Your task to perform on an android device: Go to sound settings Image 0: 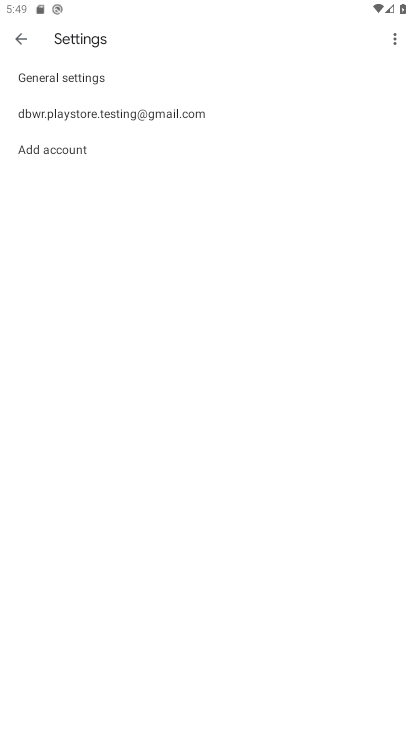
Step 0: press home button
Your task to perform on an android device: Go to sound settings Image 1: 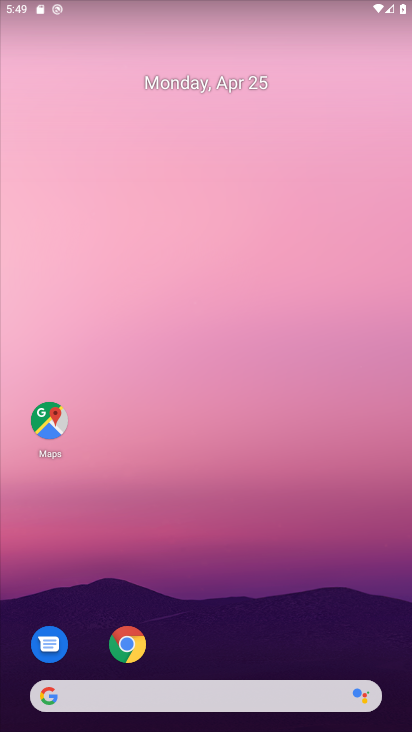
Step 1: drag from (220, 605) to (139, 37)
Your task to perform on an android device: Go to sound settings Image 2: 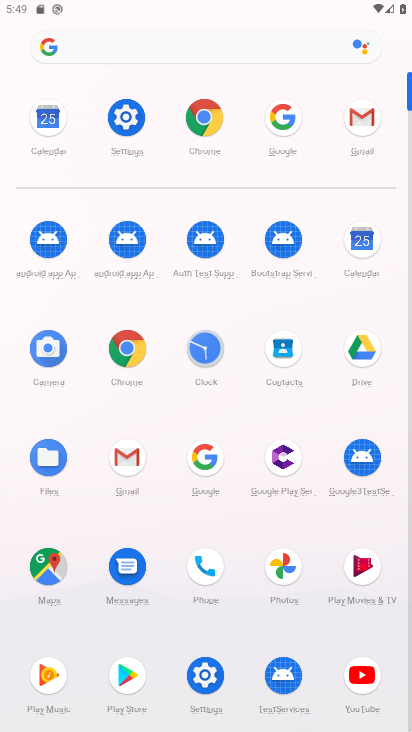
Step 2: click (133, 118)
Your task to perform on an android device: Go to sound settings Image 3: 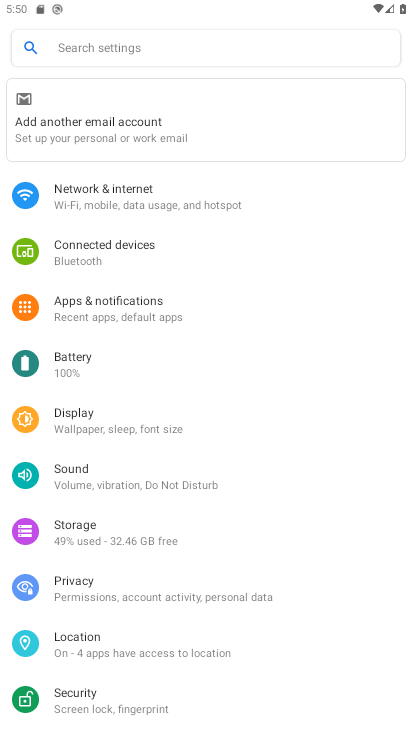
Step 3: click (125, 462)
Your task to perform on an android device: Go to sound settings Image 4: 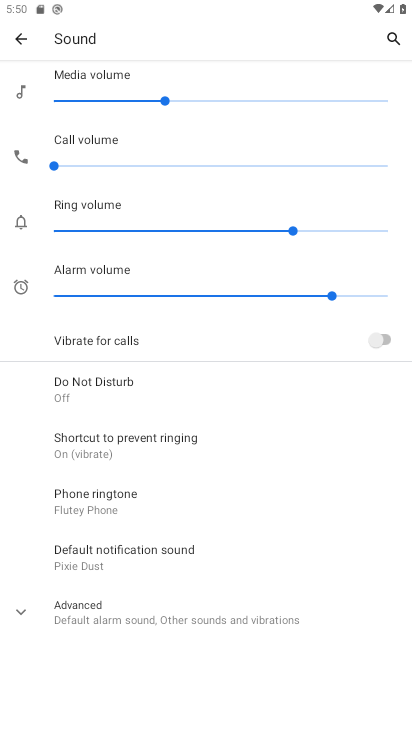
Step 4: task complete